Your task to perform on an android device: open app "Venmo" (install if not already installed), go to login, and select forgot password Image 0: 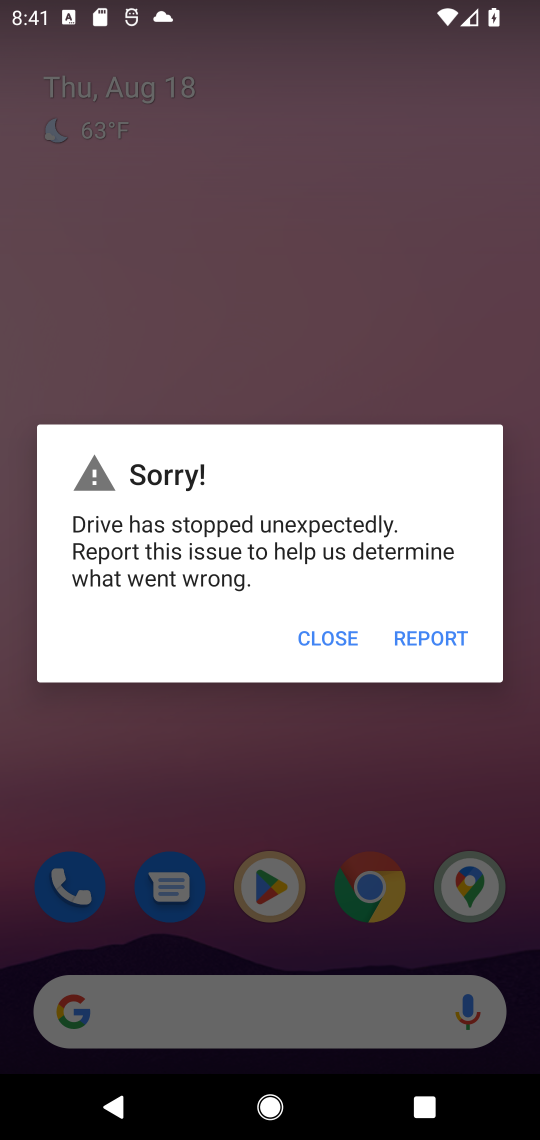
Step 0: press home button
Your task to perform on an android device: open app "Venmo" (install if not already installed), go to login, and select forgot password Image 1: 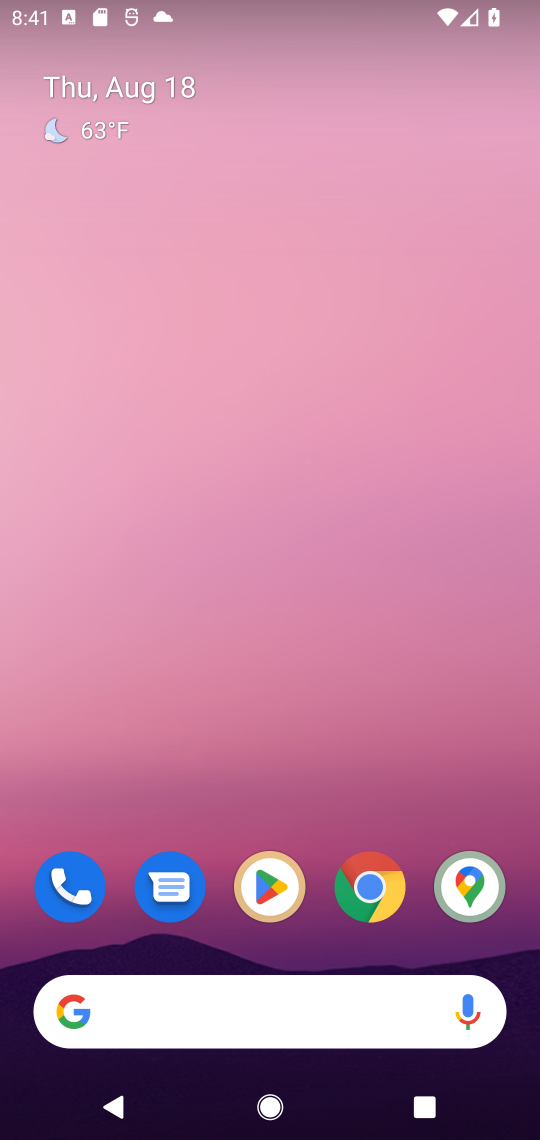
Step 1: click (261, 895)
Your task to perform on an android device: open app "Venmo" (install if not already installed), go to login, and select forgot password Image 2: 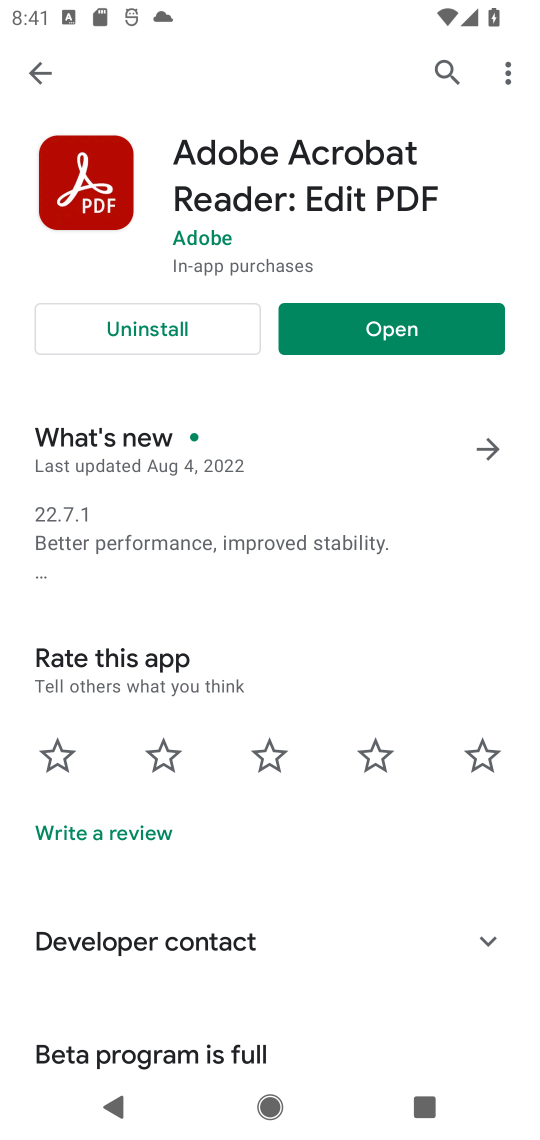
Step 2: click (449, 66)
Your task to perform on an android device: open app "Venmo" (install if not already installed), go to login, and select forgot password Image 3: 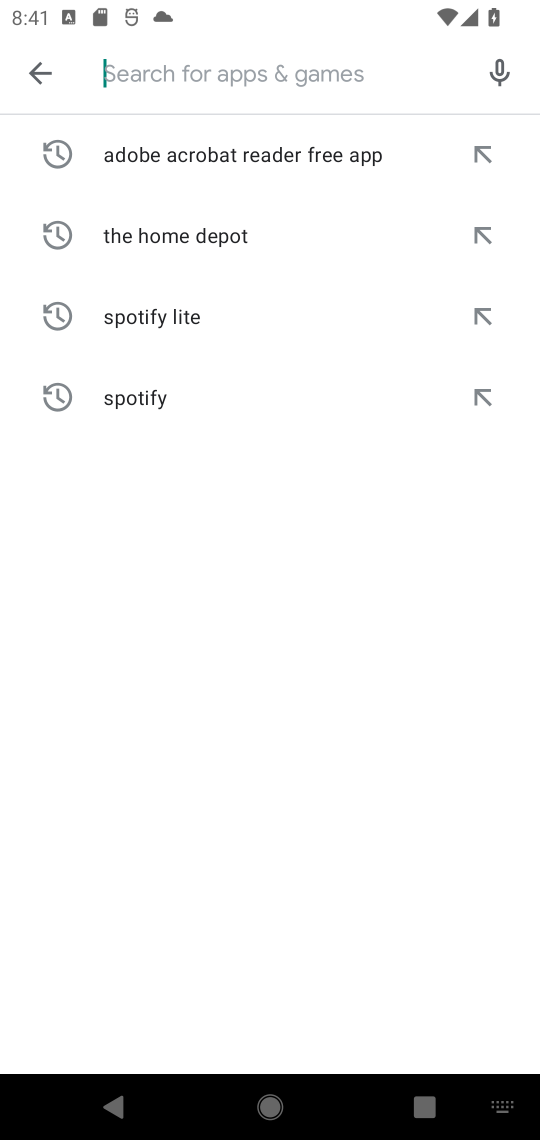
Step 3: type "Venmo"
Your task to perform on an android device: open app "Venmo" (install if not already installed), go to login, and select forgot password Image 4: 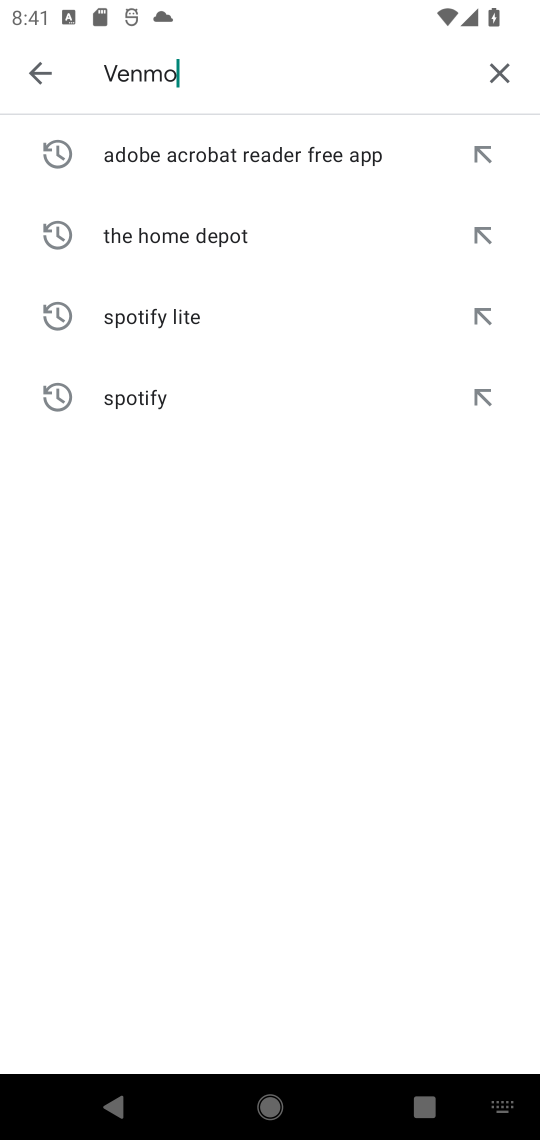
Step 4: type ""
Your task to perform on an android device: open app "Venmo" (install if not already installed), go to login, and select forgot password Image 5: 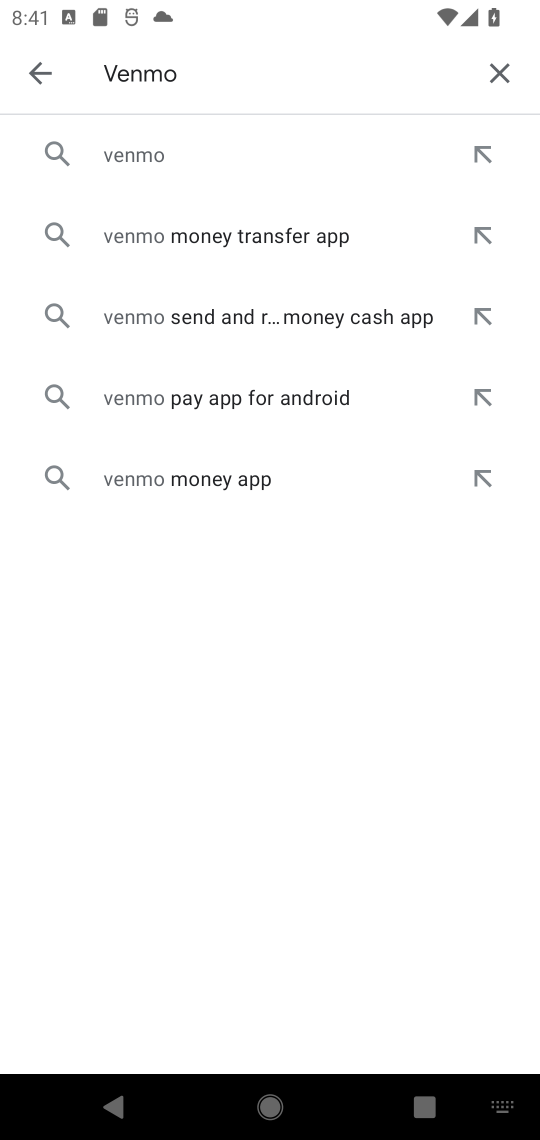
Step 5: click (137, 156)
Your task to perform on an android device: open app "Venmo" (install if not already installed), go to login, and select forgot password Image 6: 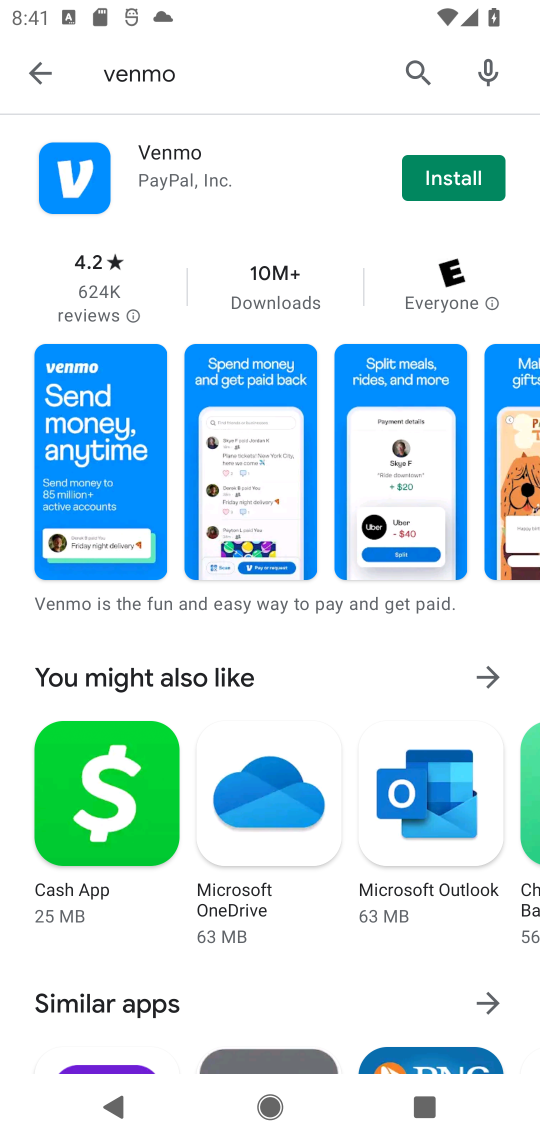
Step 6: click (441, 181)
Your task to perform on an android device: open app "Venmo" (install if not already installed), go to login, and select forgot password Image 7: 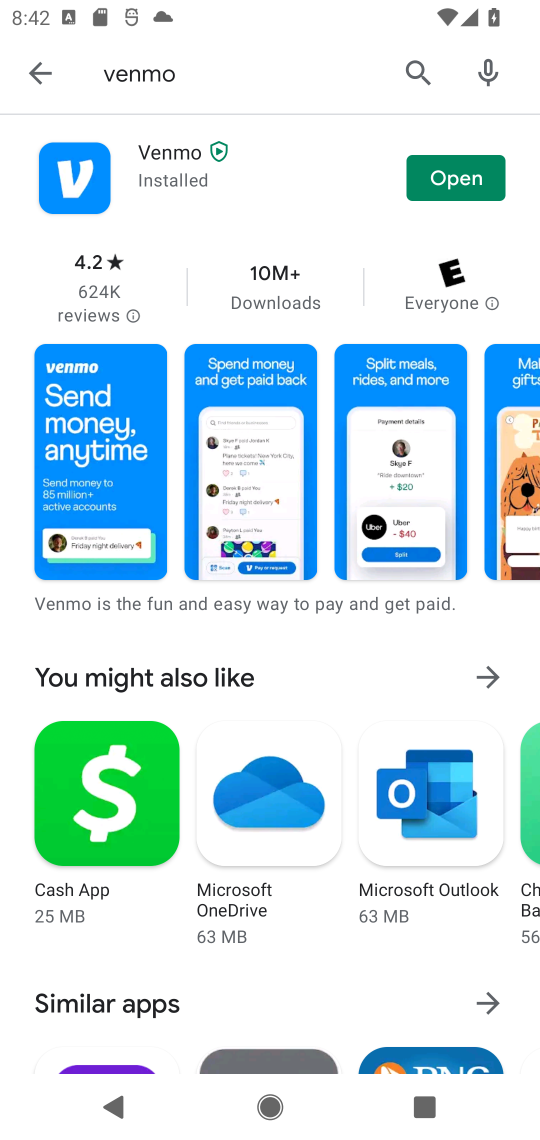
Step 7: click (457, 174)
Your task to perform on an android device: open app "Venmo" (install if not already installed), go to login, and select forgot password Image 8: 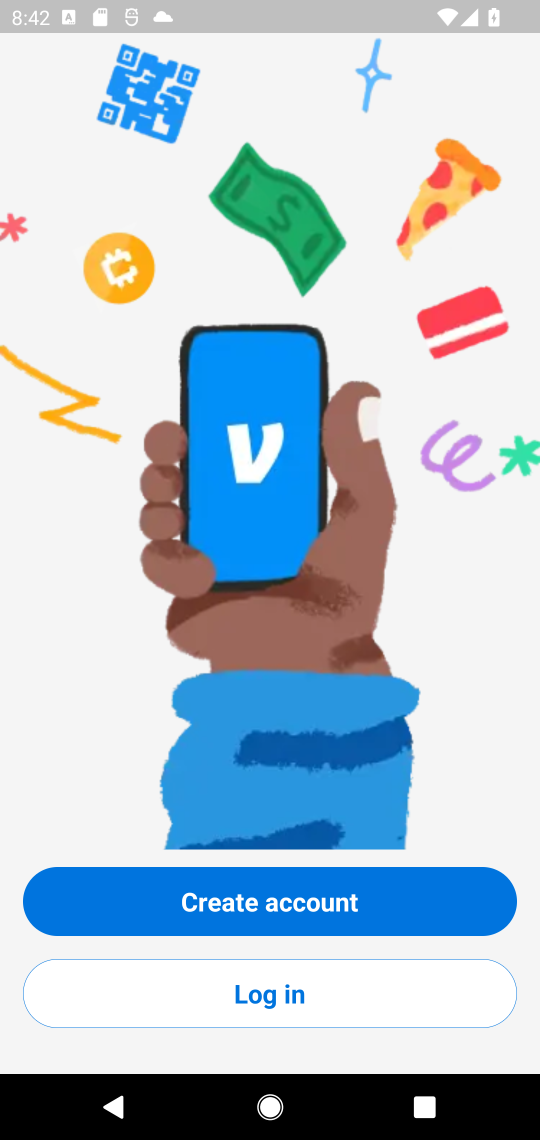
Step 8: task complete